Your task to perform on an android device: empty trash in google photos Image 0: 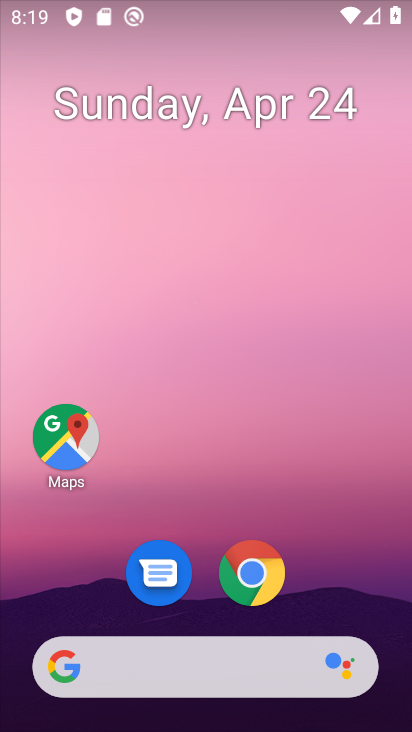
Step 0: drag from (309, 589) to (270, 125)
Your task to perform on an android device: empty trash in google photos Image 1: 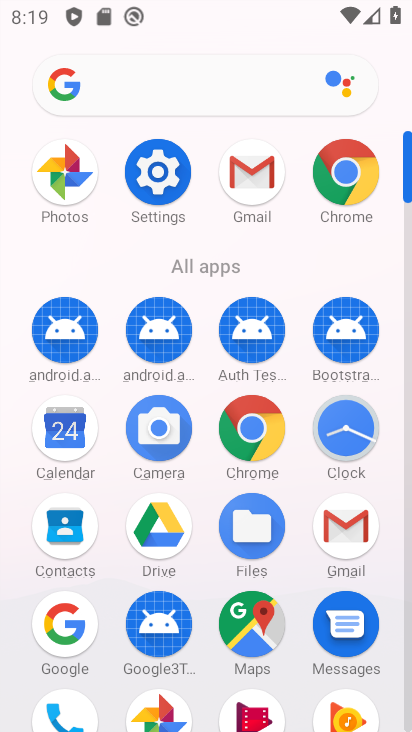
Step 1: click (65, 156)
Your task to perform on an android device: empty trash in google photos Image 2: 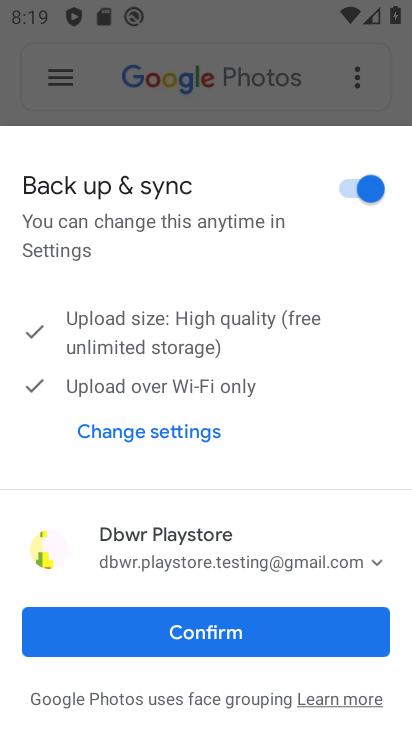
Step 2: click (145, 651)
Your task to perform on an android device: empty trash in google photos Image 3: 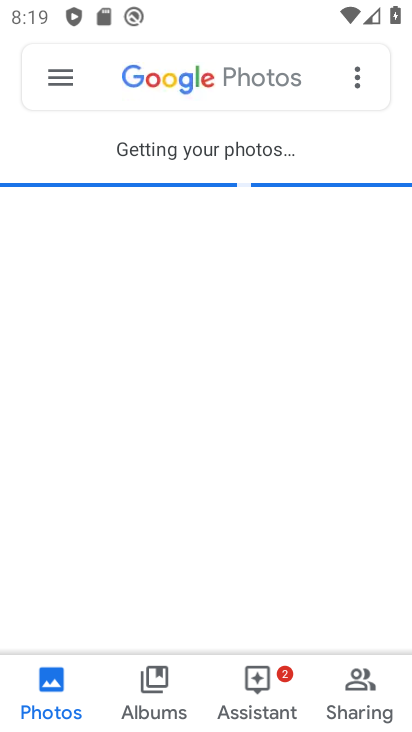
Step 3: click (49, 78)
Your task to perform on an android device: empty trash in google photos Image 4: 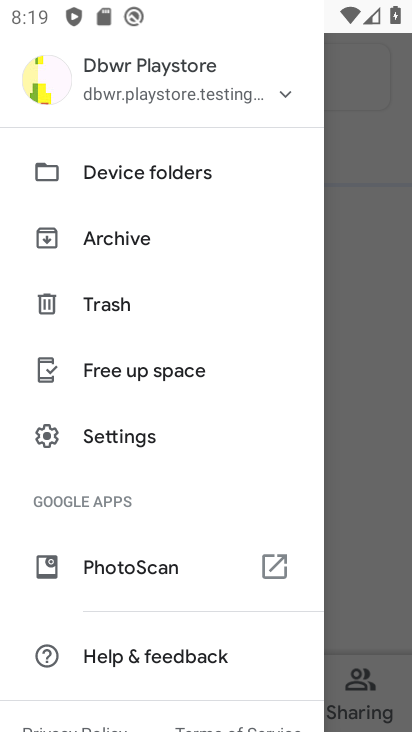
Step 4: click (106, 302)
Your task to perform on an android device: empty trash in google photos Image 5: 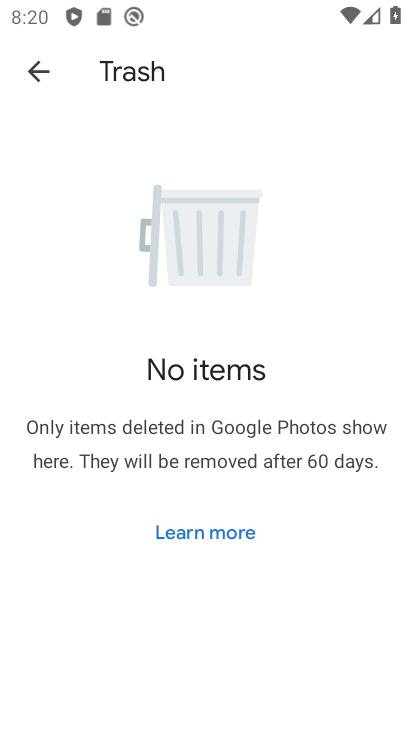
Step 5: task complete